Your task to perform on an android device: turn off javascript in the chrome app Image 0: 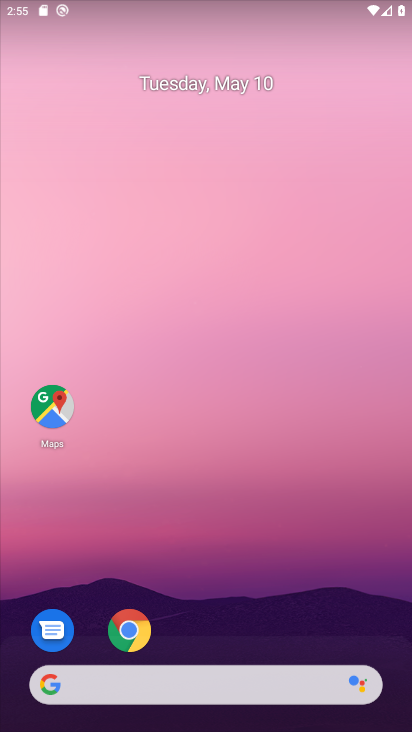
Step 0: click (139, 629)
Your task to perform on an android device: turn off javascript in the chrome app Image 1: 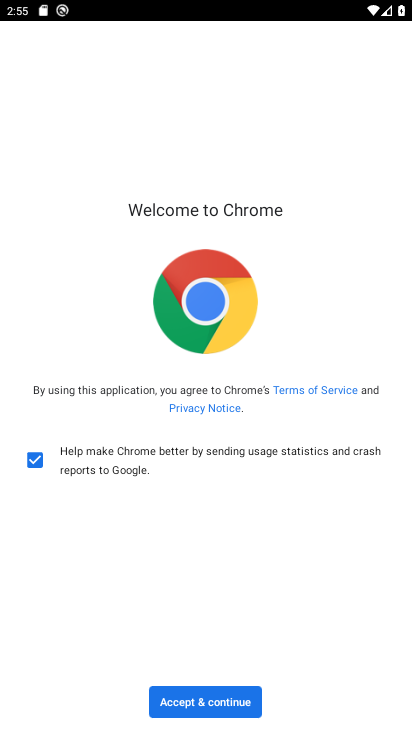
Step 1: click (198, 704)
Your task to perform on an android device: turn off javascript in the chrome app Image 2: 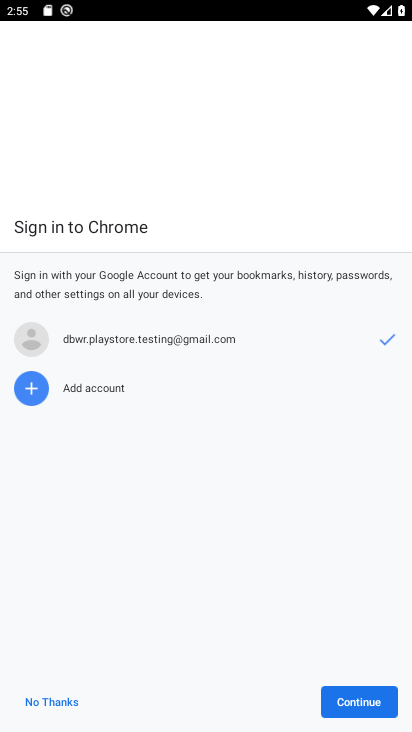
Step 2: click (373, 705)
Your task to perform on an android device: turn off javascript in the chrome app Image 3: 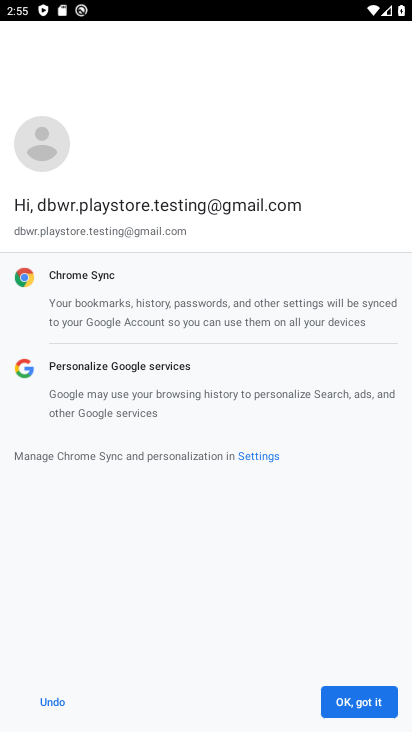
Step 3: click (370, 701)
Your task to perform on an android device: turn off javascript in the chrome app Image 4: 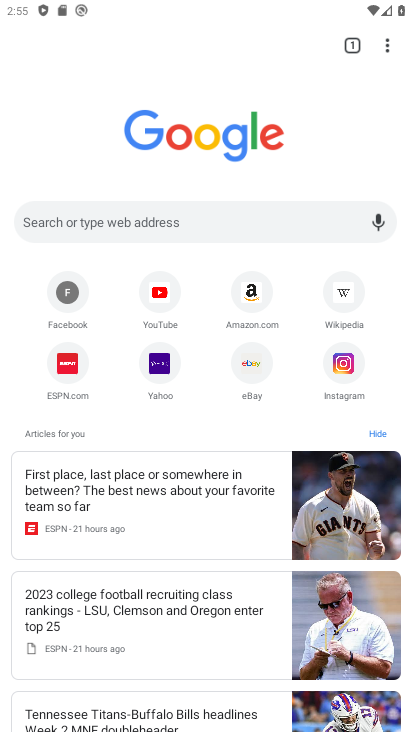
Step 4: click (380, 50)
Your task to perform on an android device: turn off javascript in the chrome app Image 5: 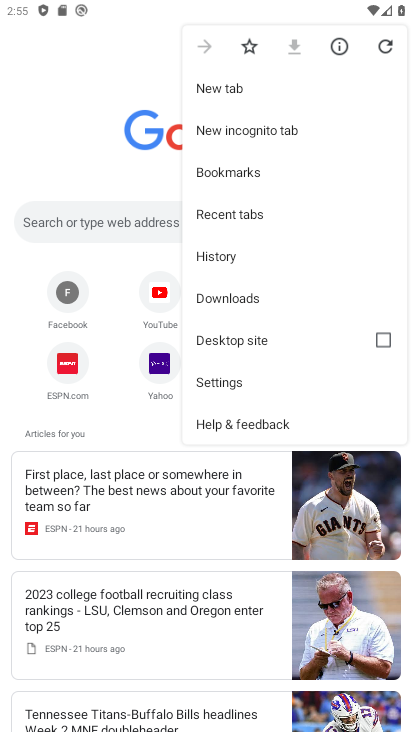
Step 5: click (256, 380)
Your task to perform on an android device: turn off javascript in the chrome app Image 6: 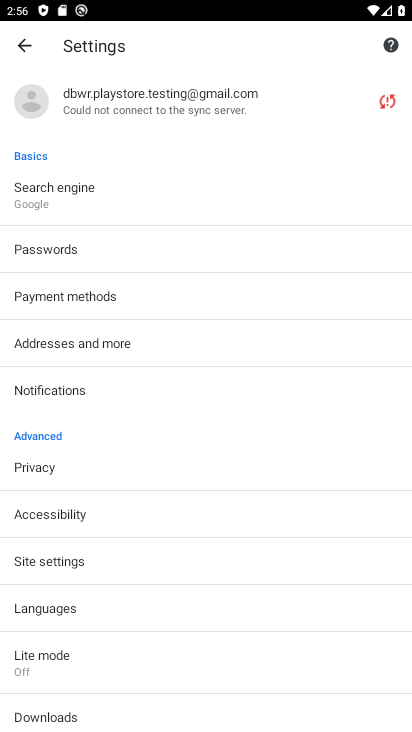
Step 6: drag from (175, 588) to (181, 183)
Your task to perform on an android device: turn off javascript in the chrome app Image 7: 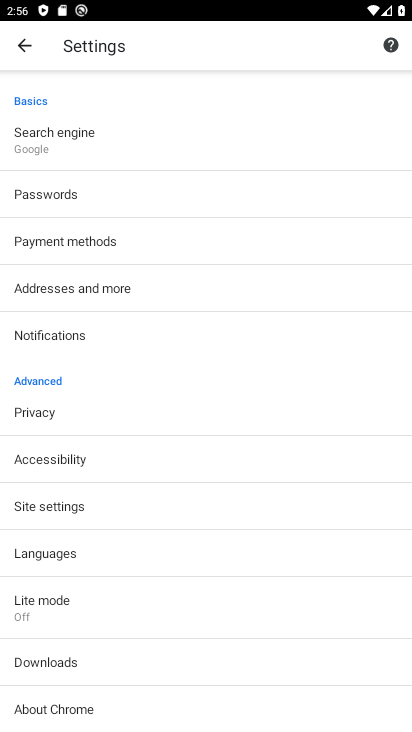
Step 7: click (59, 513)
Your task to perform on an android device: turn off javascript in the chrome app Image 8: 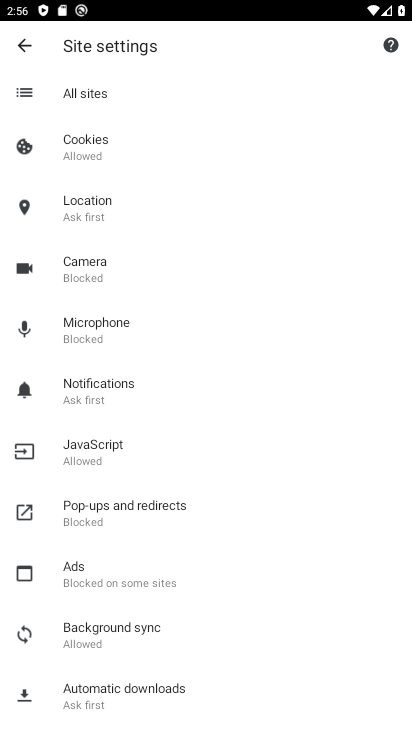
Step 8: click (119, 464)
Your task to perform on an android device: turn off javascript in the chrome app Image 9: 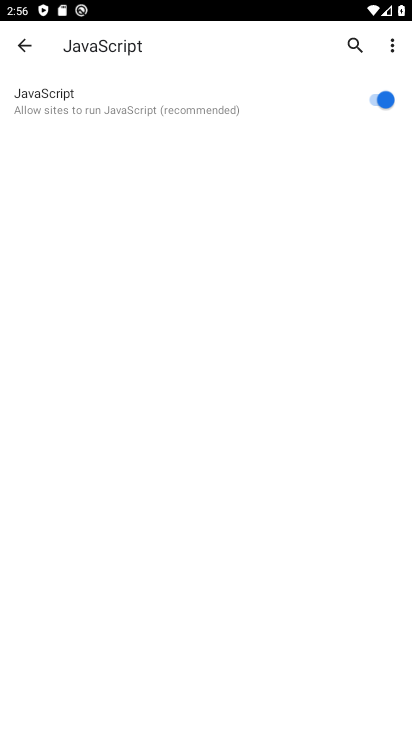
Step 9: click (376, 93)
Your task to perform on an android device: turn off javascript in the chrome app Image 10: 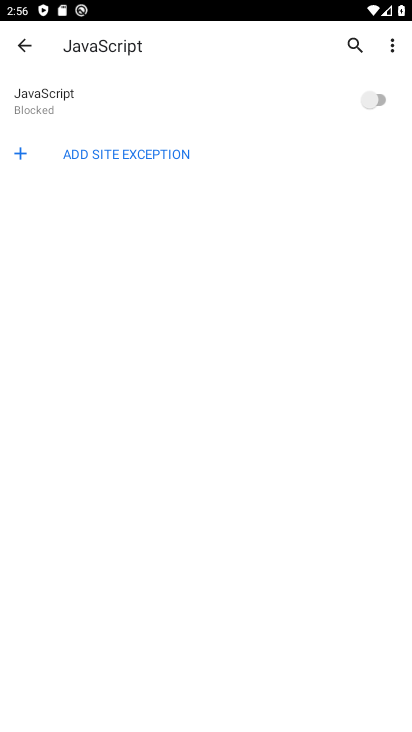
Step 10: task complete